Your task to perform on an android device: turn off notifications settings in the gmail app Image 0: 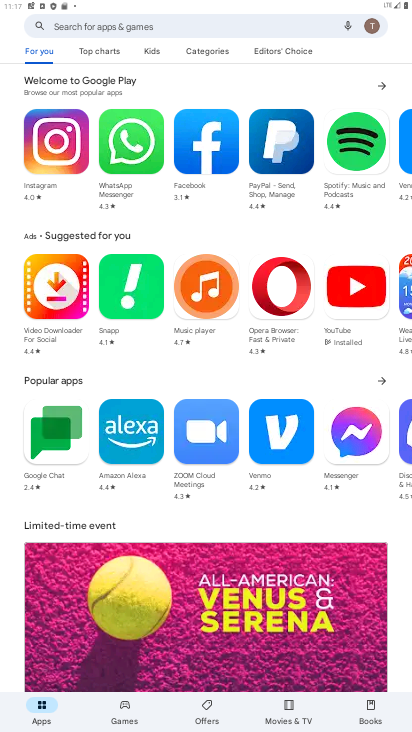
Step 0: press home button
Your task to perform on an android device: turn off notifications settings in the gmail app Image 1: 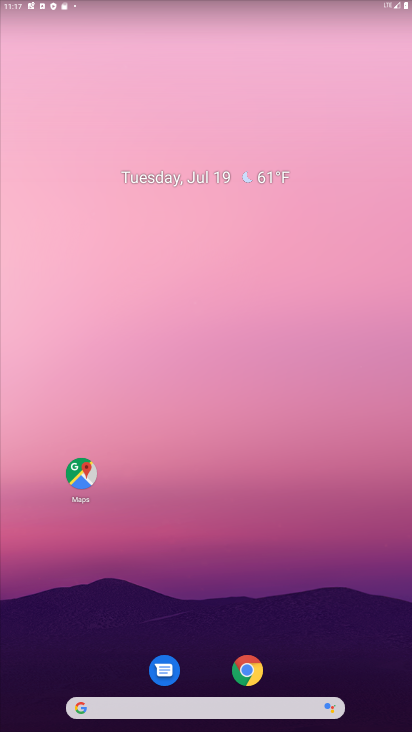
Step 1: drag from (171, 710) to (194, 82)
Your task to perform on an android device: turn off notifications settings in the gmail app Image 2: 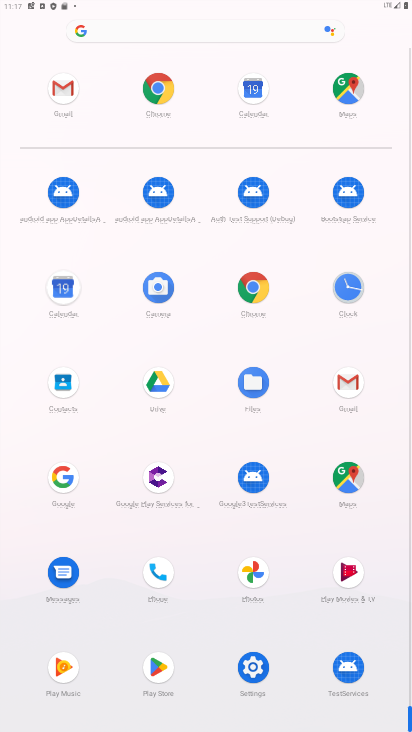
Step 2: click (62, 83)
Your task to perform on an android device: turn off notifications settings in the gmail app Image 3: 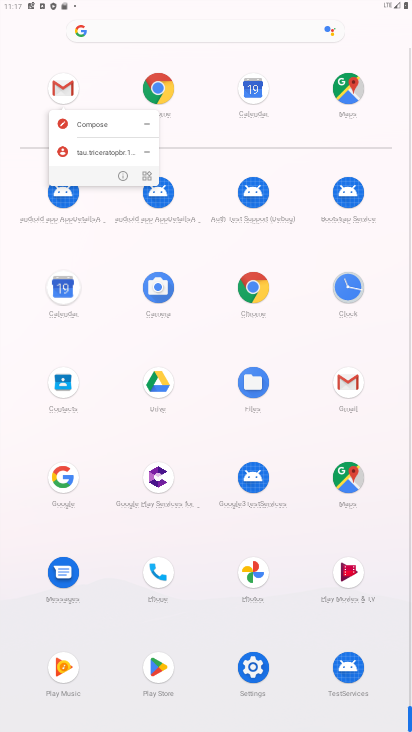
Step 3: click (123, 179)
Your task to perform on an android device: turn off notifications settings in the gmail app Image 4: 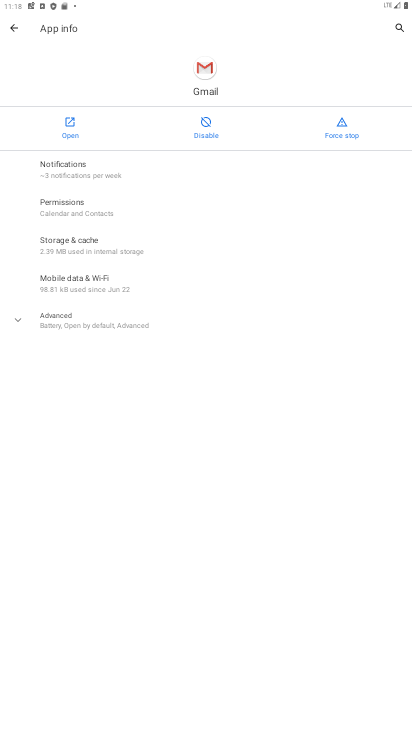
Step 4: click (206, 157)
Your task to perform on an android device: turn off notifications settings in the gmail app Image 5: 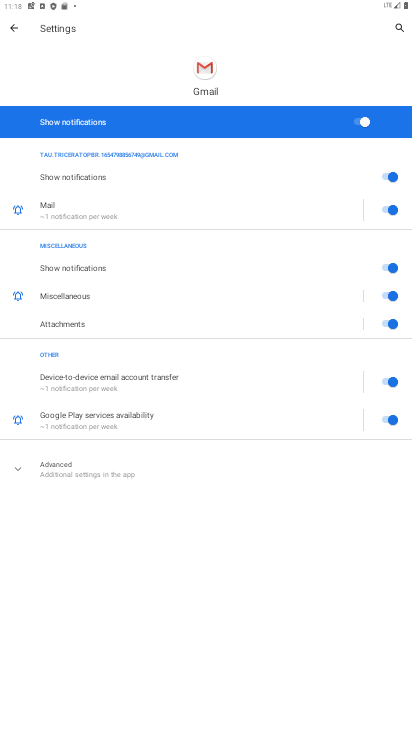
Step 5: click (365, 116)
Your task to perform on an android device: turn off notifications settings in the gmail app Image 6: 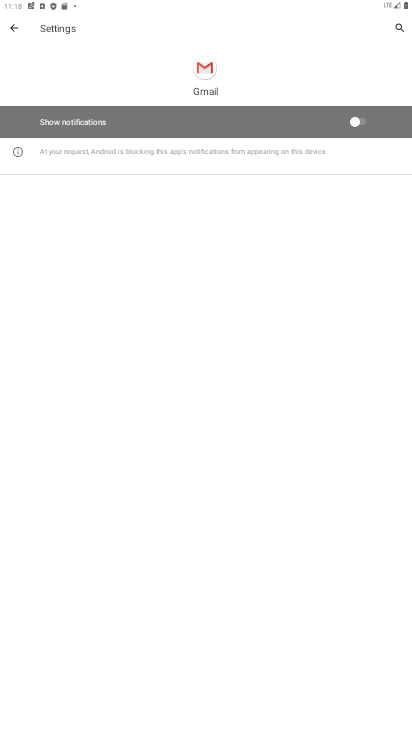
Step 6: task complete